Your task to perform on an android device: Search for vegetarian restaurants on Maps Image 0: 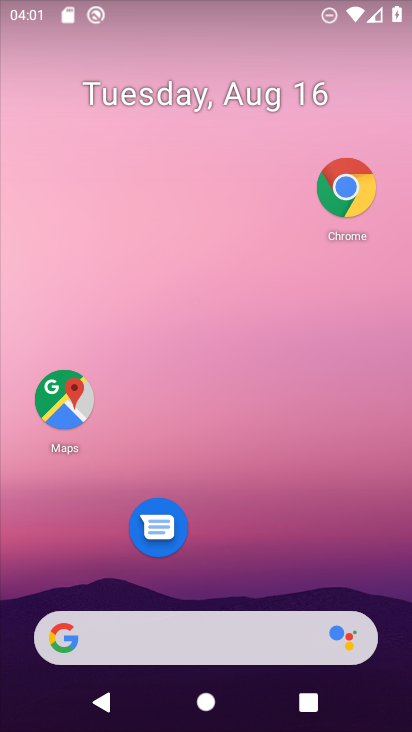
Step 0: click (63, 393)
Your task to perform on an android device: Search for vegetarian restaurants on Maps Image 1: 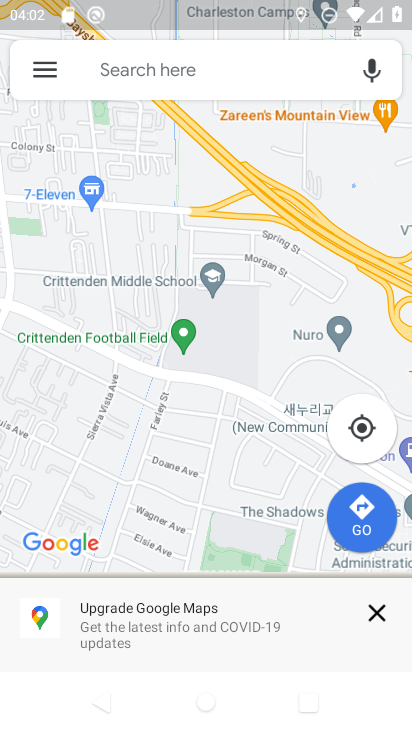
Step 1: click (375, 612)
Your task to perform on an android device: Search for vegetarian restaurants on Maps Image 2: 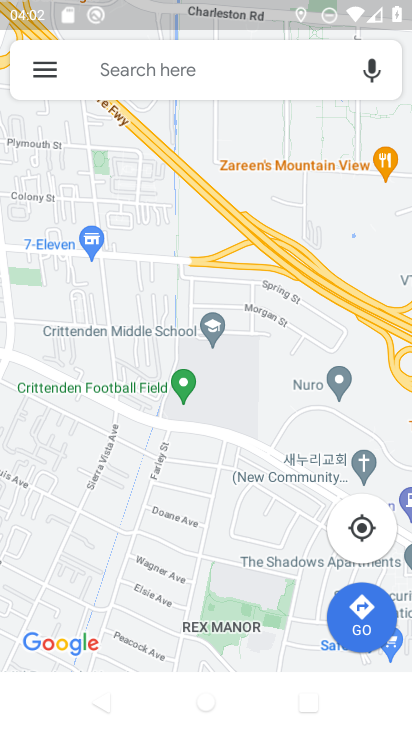
Step 2: click (129, 62)
Your task to perform on an android device: Search for vegetarian restaurants on Maps Image 3: 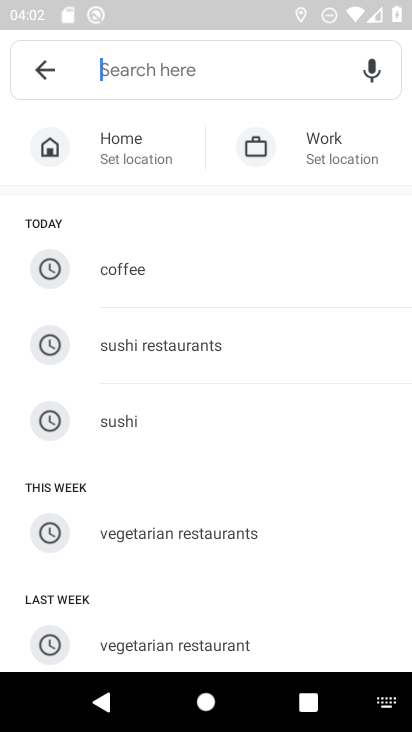
Step 3: click (259, 535)
Your task to perform on an android device: Search for vegetarian restaurants on Maps Image 4: 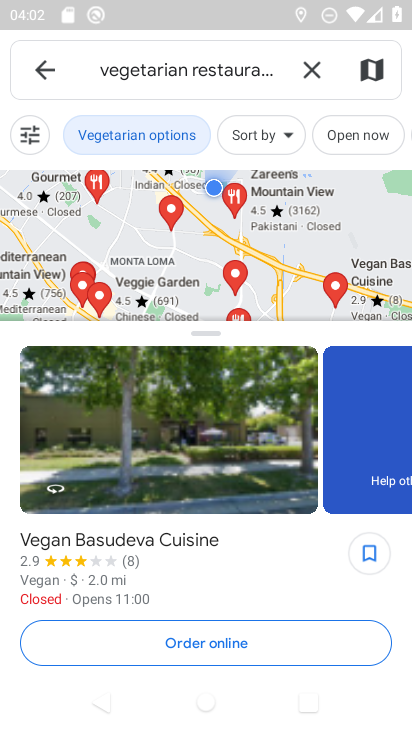
Step 4: task complete